Your task to perform on an android device: Is it going to rain today? Image 0: 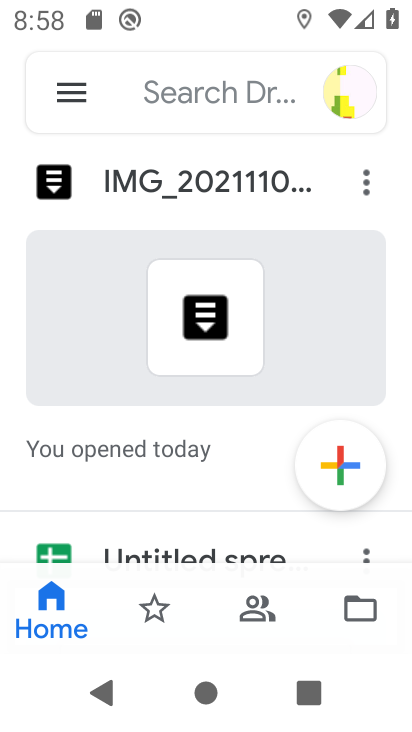
Step 0: press home button
Your task to perform on an android device: Is it going to rain today? Image 1: 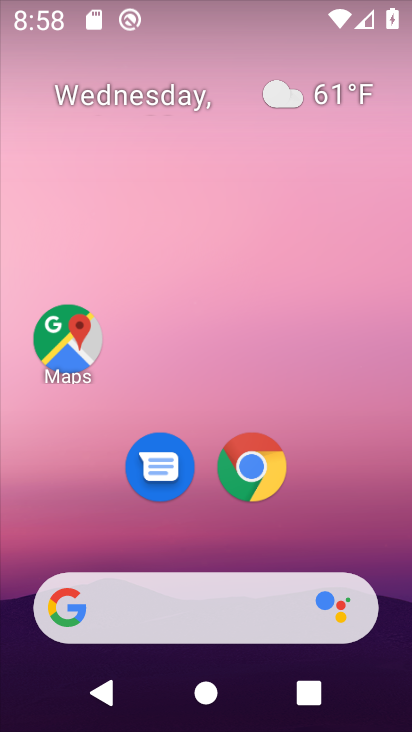
Step 1: drag from (348, 515) to (273, 93)
Your task to perform on an android device: Is it going to rain today? Image 2: 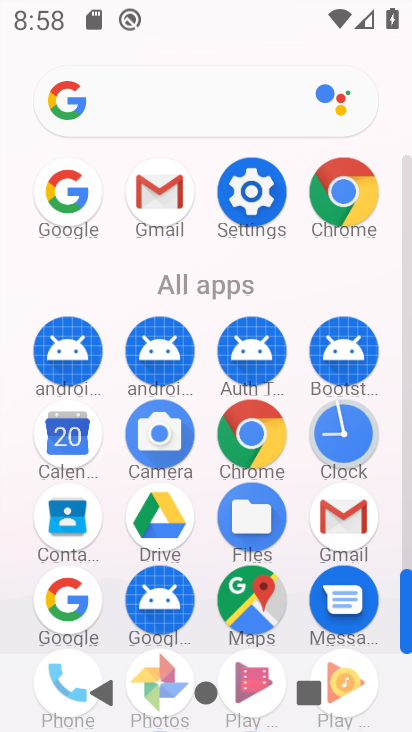
Step 2: click (103, 706)
Your task to perform on an android device: Is it going to rain today? Image 3: 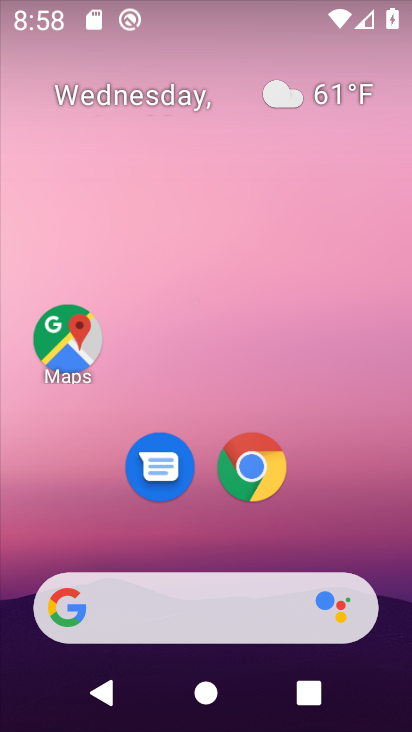
Step 3: drag from (13, 263) to (383, 175)
Your task to perform on an android device: Is it going to rain today? Image 4: 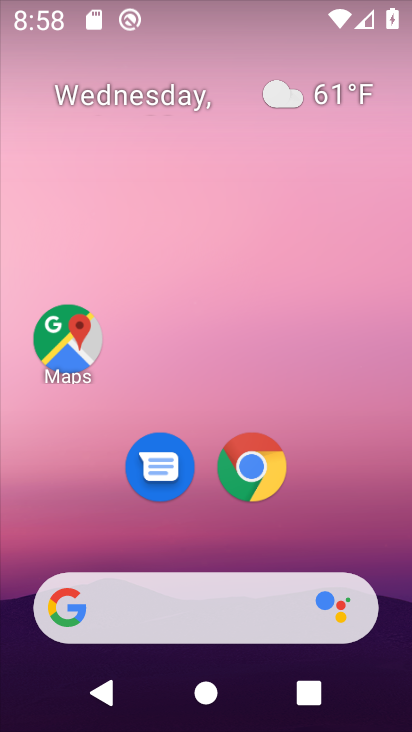
Step 4: drag from (19, 186) to (392, 196)
Your task to perform on an android device: Is it going to rain today? Image 5: 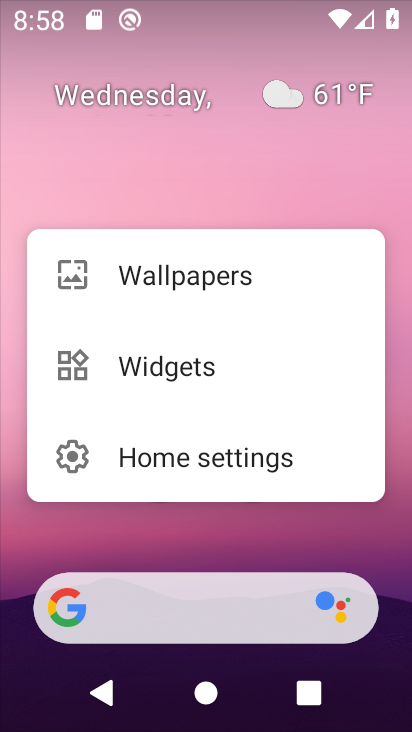
Step 5: click (273, 186)
Your task to perform on an android device: Is it going to rain today? Image 6: 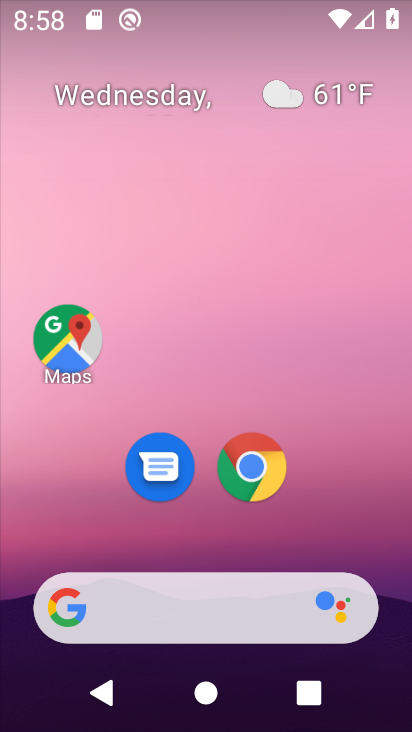
Step 6: drag from (0, 189) to (376, 167)
Your task to perform on an android device: Is it going to rain today? Image 7: 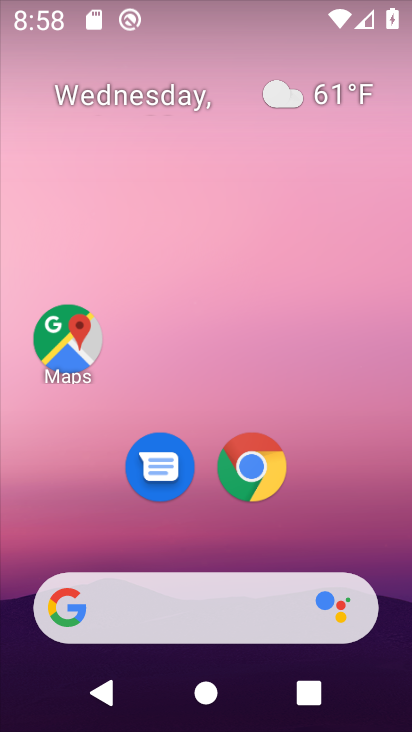
Step 7: drag from (82, 242) to (398, 242)
Your task to perform on an android device: Is it going to rain today? Image 8: 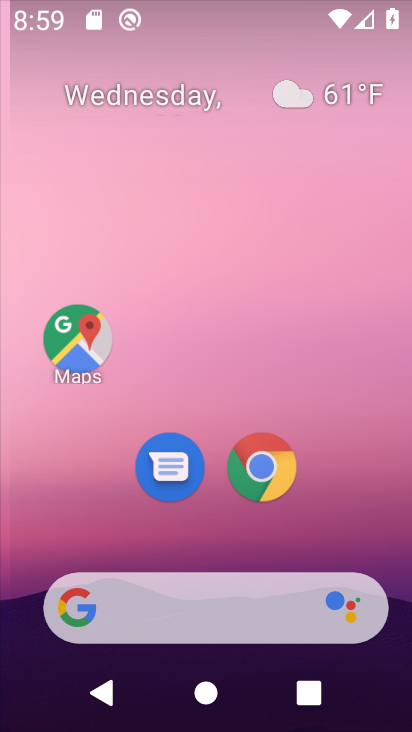
Step 8: drag from (28, 225) to (350, 231)
Your task to perform on an android device: Is it going to rain today? Image 9: 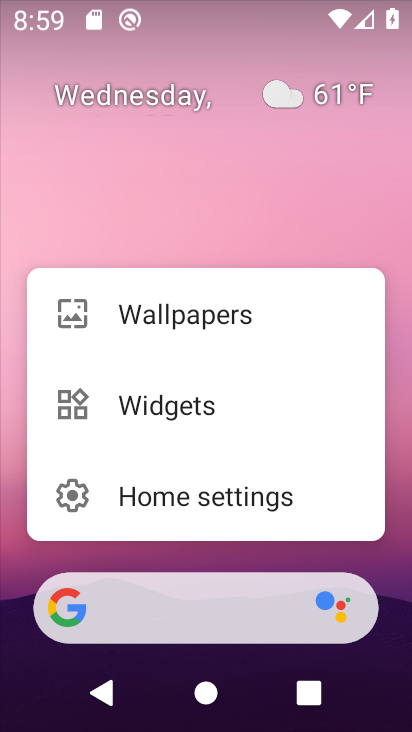
Step 9: click (18, 204)
Your task to perform on an android device: Is it going to rain today? Image 10: 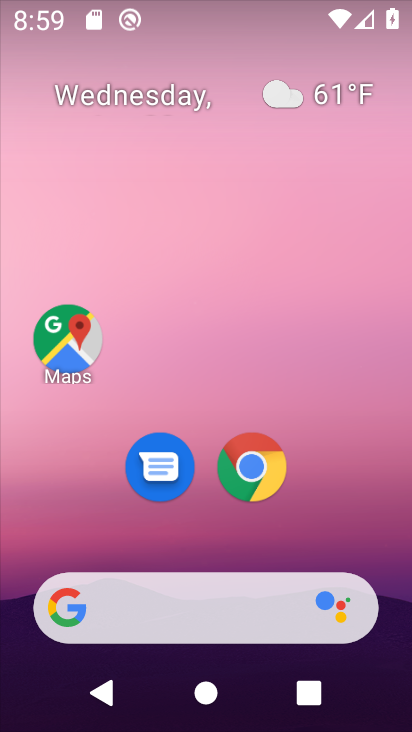
Step 10: drag from (5, 185) to (356, 334)
Your task to perform on an android device: Is it going to rain today? Image 11: 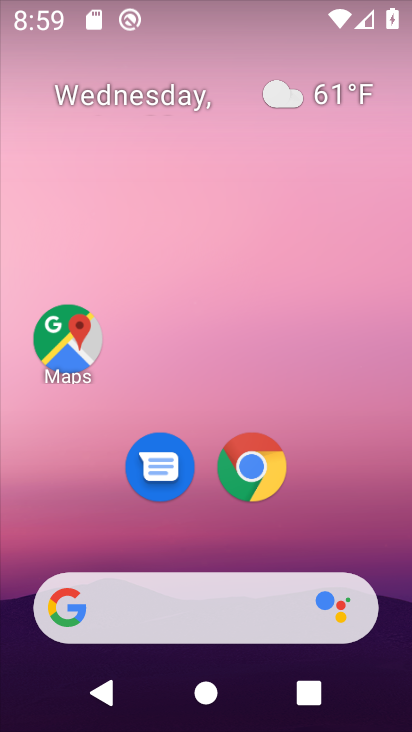
Step 11: drag from (18, 226) to (257, 225)
Your task to perform on an android device: Is it going to rain today? Image 12: 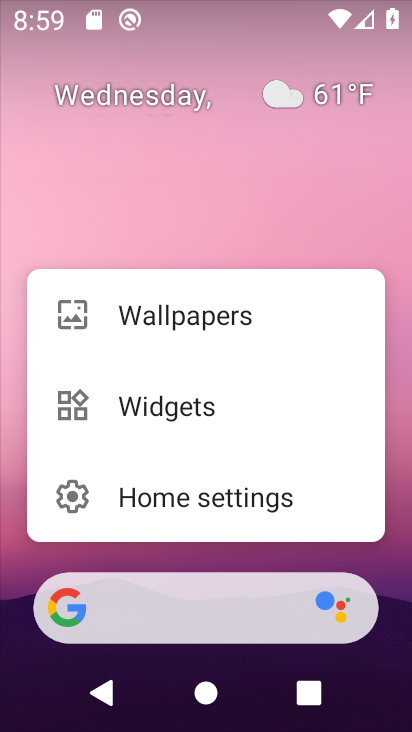
Step 12: drag from (3, 197) to (411, 240)
Your task to perform on an android device: Is it going to rain today? Image 13: 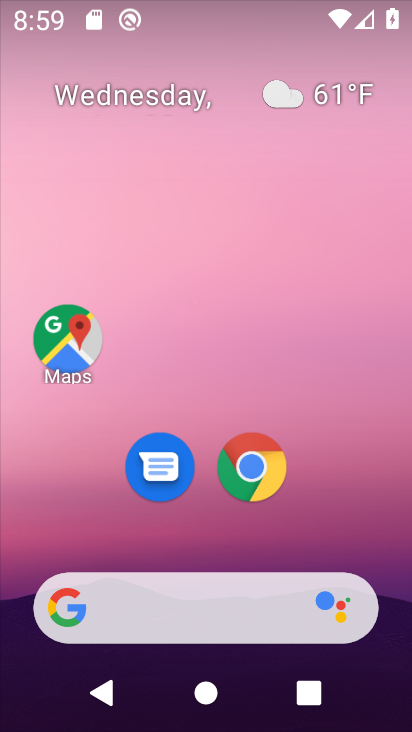
Step 13: drag from (185, 177) to (384, 130)
Your task to perform on an android device: Is it going to rain today? Image 14: 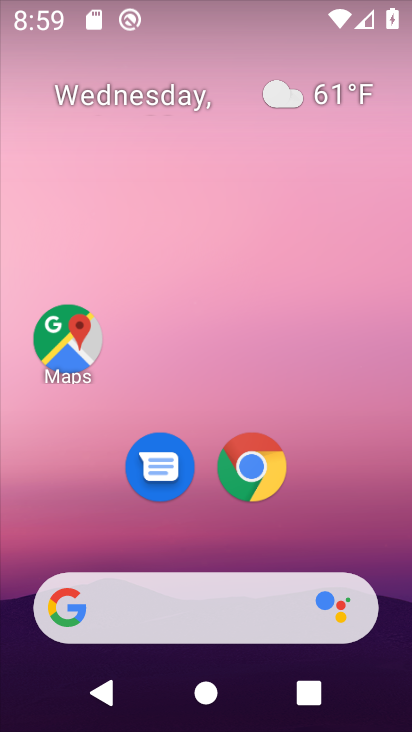
Step 14: drag from (1, 200) to (397, 252)
Your task to perform on an android device: Is it going to rain today? Image 15: 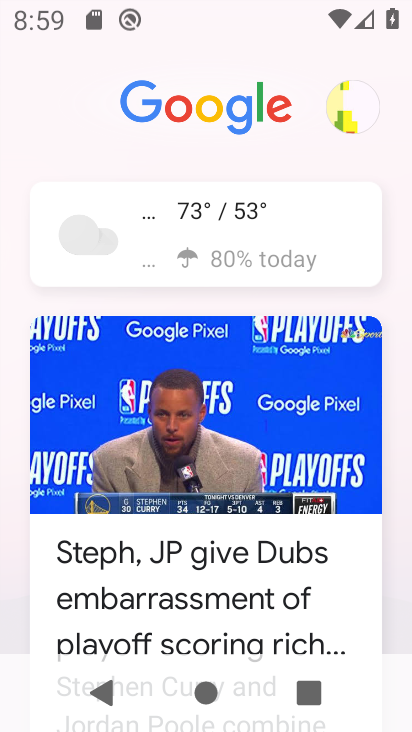
Step 15: click (168, 234)
Your task to perform on an android device: Is it going to rain today? Image 16: 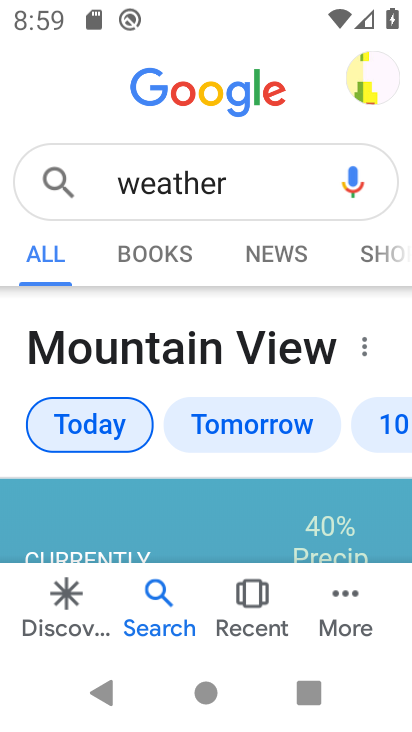
Step 16: drag from (185, 536) to (189, 328)
Your task to perform on an android device: Is it going to rain today? Image 17: 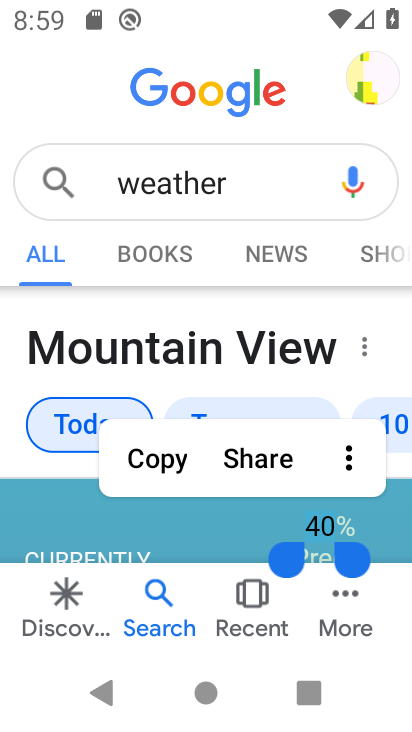
Step 17: click (392, 549)
Your task to perform on an android device: Is it going to rain today? Image 18: 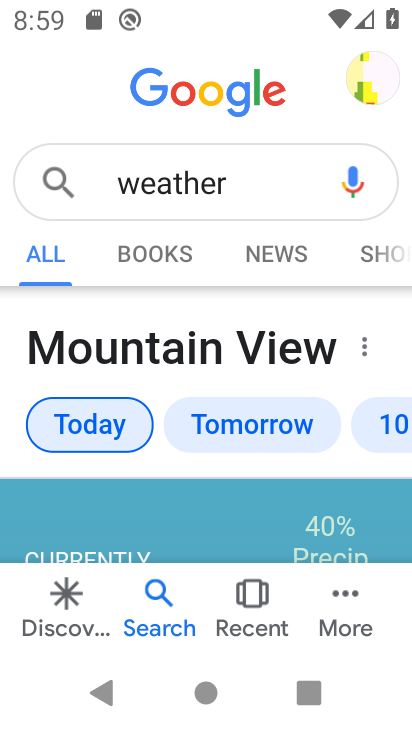
Step 18: drag from (392, 548) to (387, 317)
Your task to perform on an android device: Is it going to rain today? Image 19: 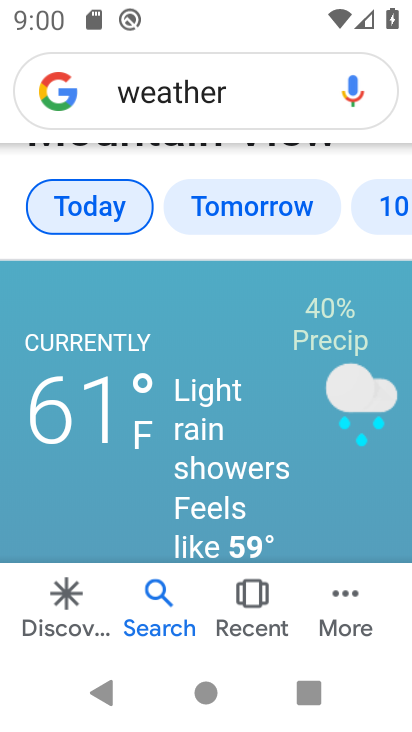
Step 19: click (210, 433)
Your task to perform on an android device: Is it going to rain today? Image 20: 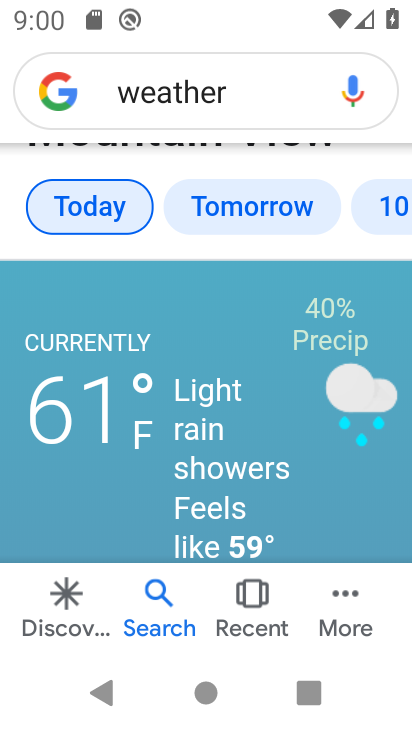
Step 20: click (203, 416)
Your task to perform on an android device: Is it going to rain today? Image 21: 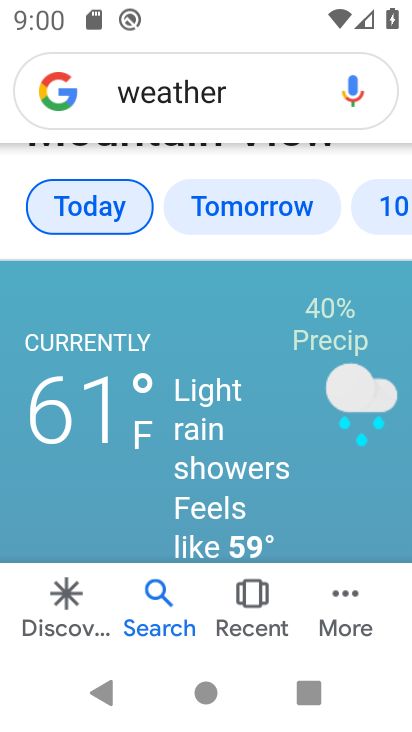
Step 21: task complete